Your task to perform on an android device: turn on the 24-hour format for clock Image 0: 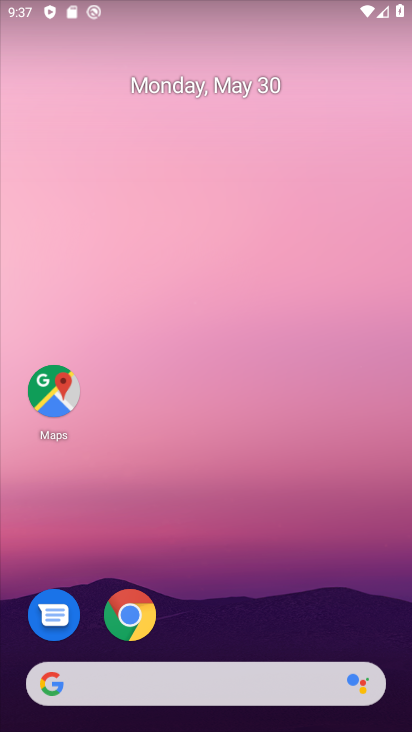
Step 0: drag from (220, 623) to (223, 64)
Your task to perform on an android device: turn on the 24-hour format for clock Image 1: 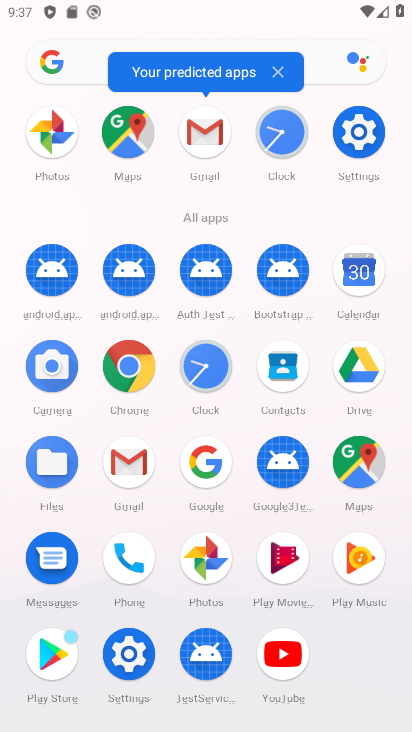
Step 1: click (292, 139)
Your task to perform on an android device: turn on the 24-hour format for clock Image 2: 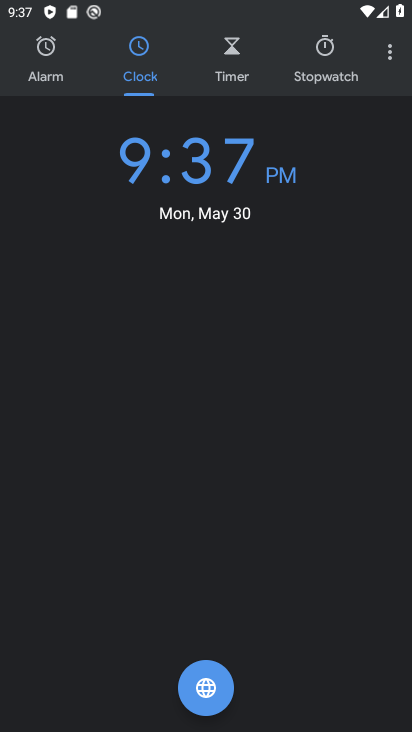
Step 2: click (393, 55)
Your task to perform on an android device: turn on the 24-hour format for clock Image 3: 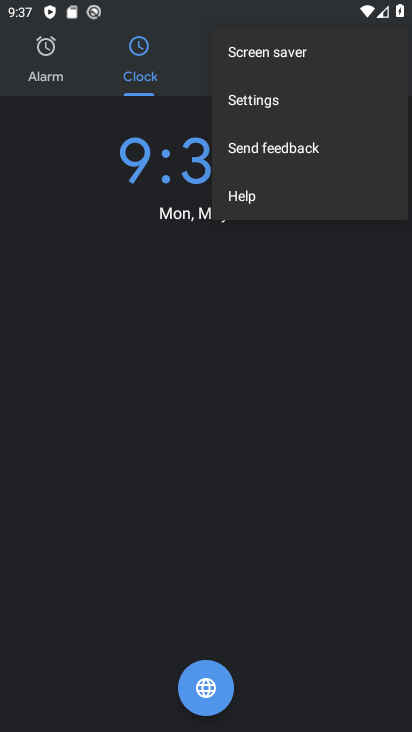
Step 3: click (365, 93)
Your task to perform on an android device: turn on the 24-hour format for clock Image 4: 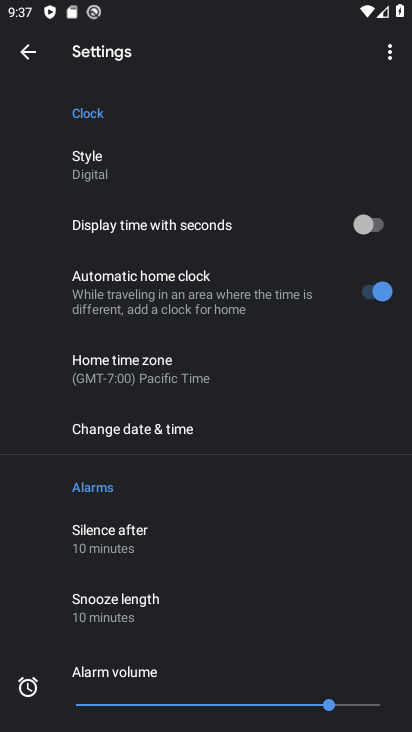
Step 4: drag from (264, 660) to (260, 342)
Your task to perform on an android device: turn on the 24-hour format for clock Image 5: 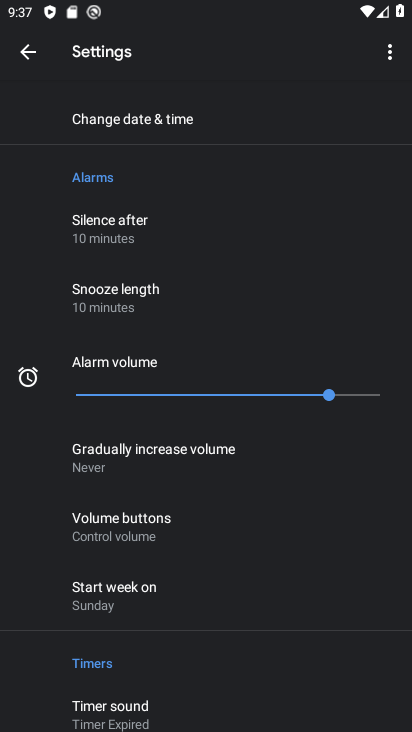
Step 5: click (234, 122)
Your task to perform on an android device: turn on the 24-hour format for clock Image 6: 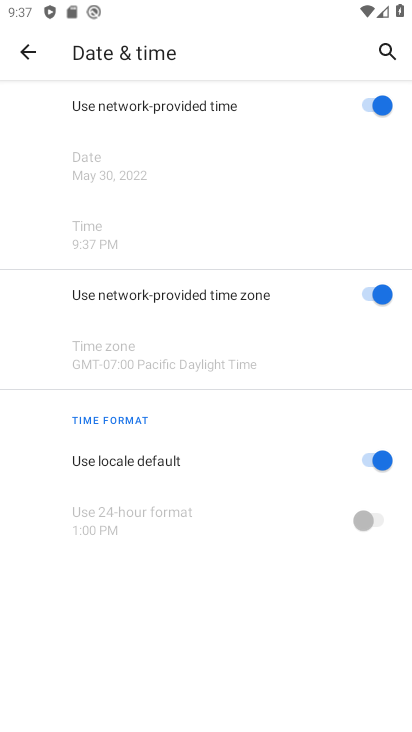
Step 6: click (368, 457)
Your task to perform on an android device: turn on the 24-hour format for clock Image 7: 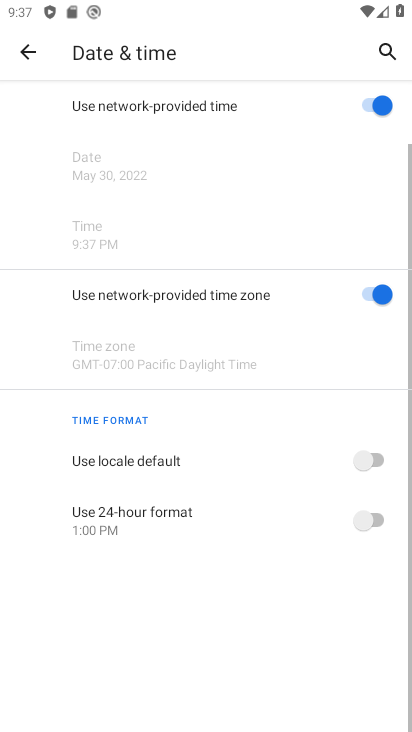
Step 7: click (375, 519)
Your task to perform on an android device: turn on the 24-hour format for clock Image 8: 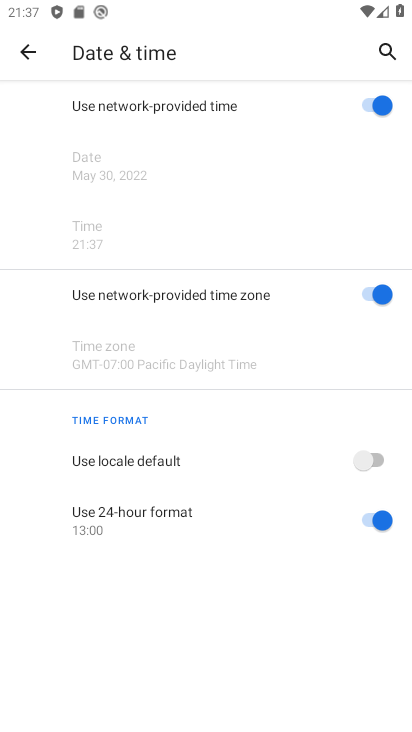
Step 8: task complete